Your task to perform on an android device: Open Chrome and go to settings Image 0: 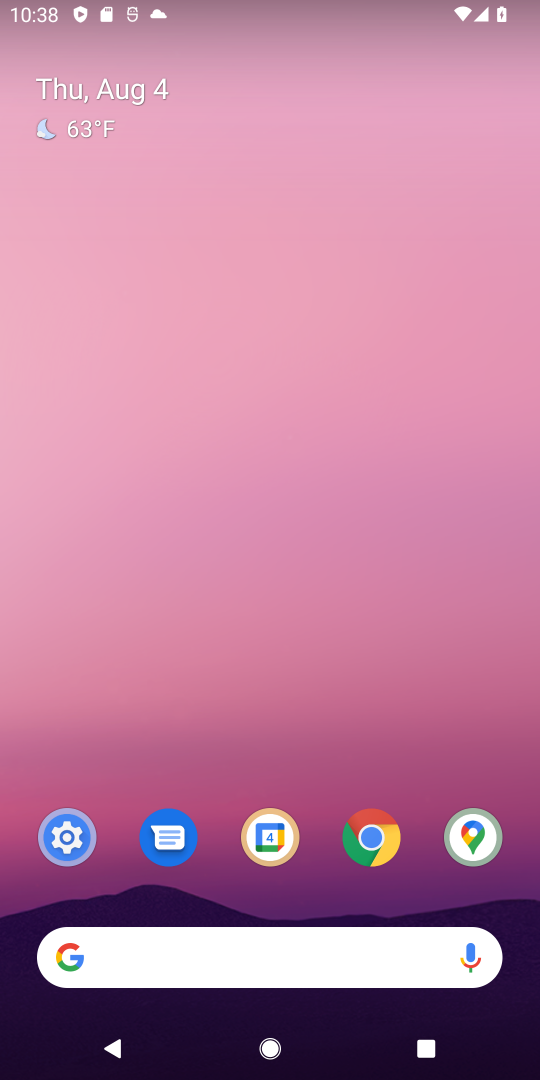
Step 0: press home button
Your task to perform on an android device: Open Chrome and go to settings Image 1: 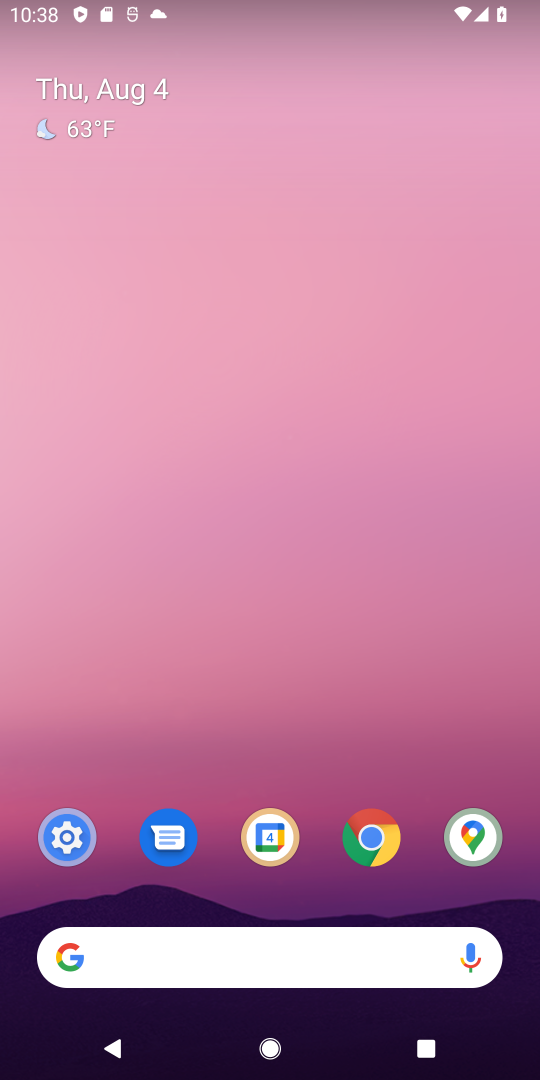
Step 1: drag from (306, 894) to (346, 149)
Your task to perform on an android device: Open Chrome and go to settings Image 2: 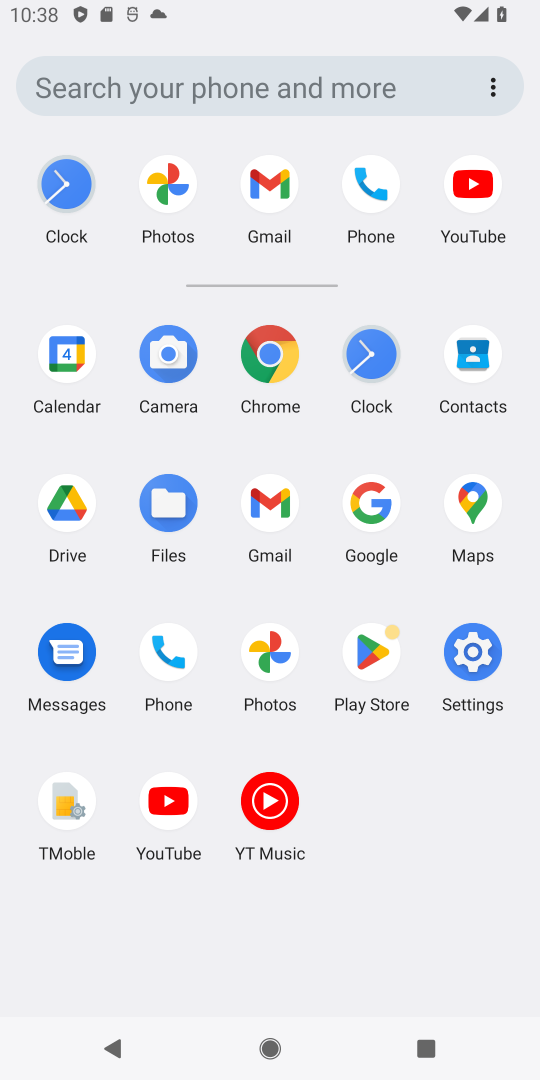
Step 2: click (270, 346)
Your task to perform on an android device: Open Chrome and go to settings Image 3: 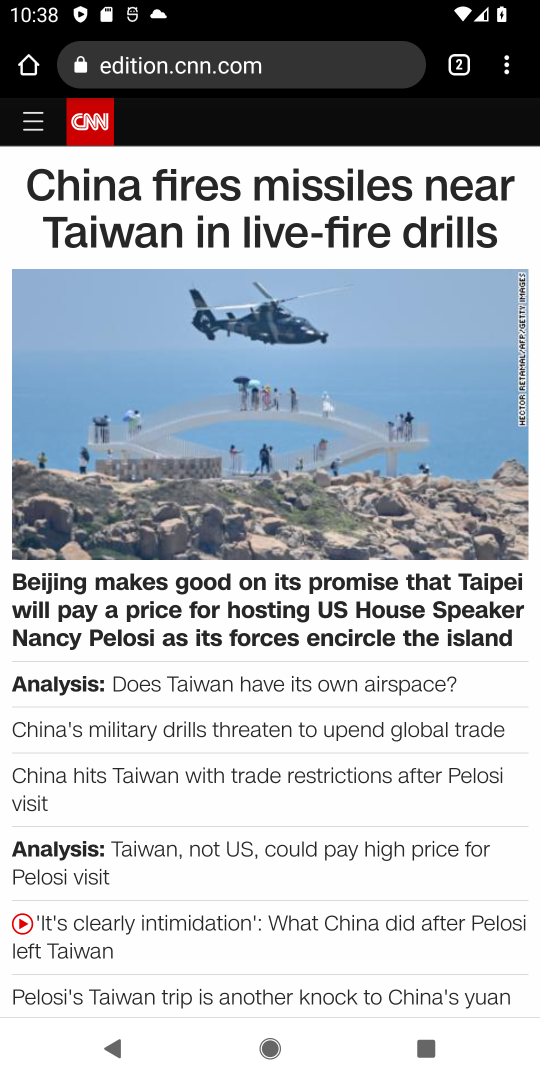
Step 3: click (506, 59)
Your task to perform on an android device: Open Chrome and go to settings Image 4: 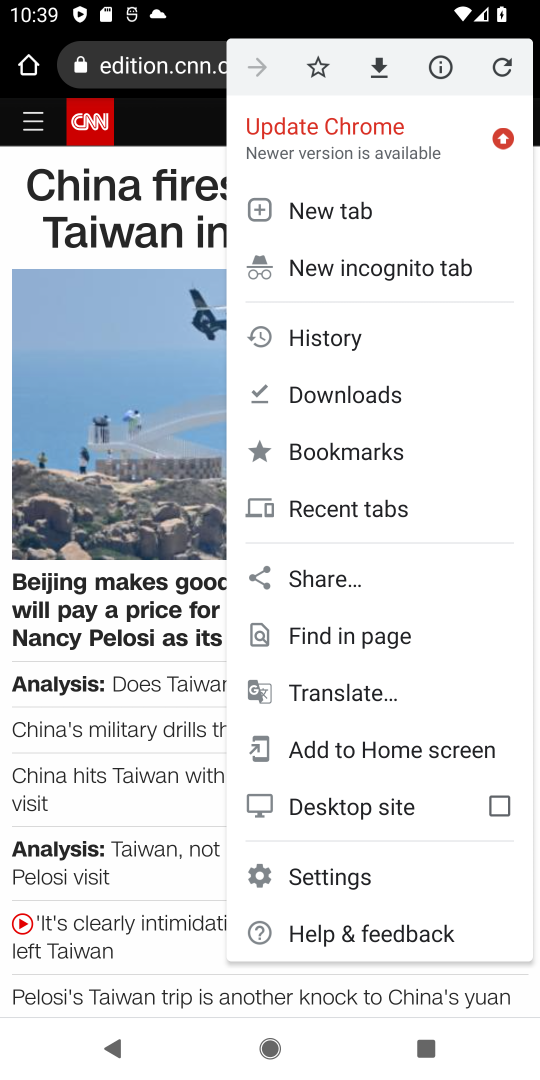
Step 4: click (378, 882)
Your task to perform on an android device: Open Chrome and go to settings Image 5: 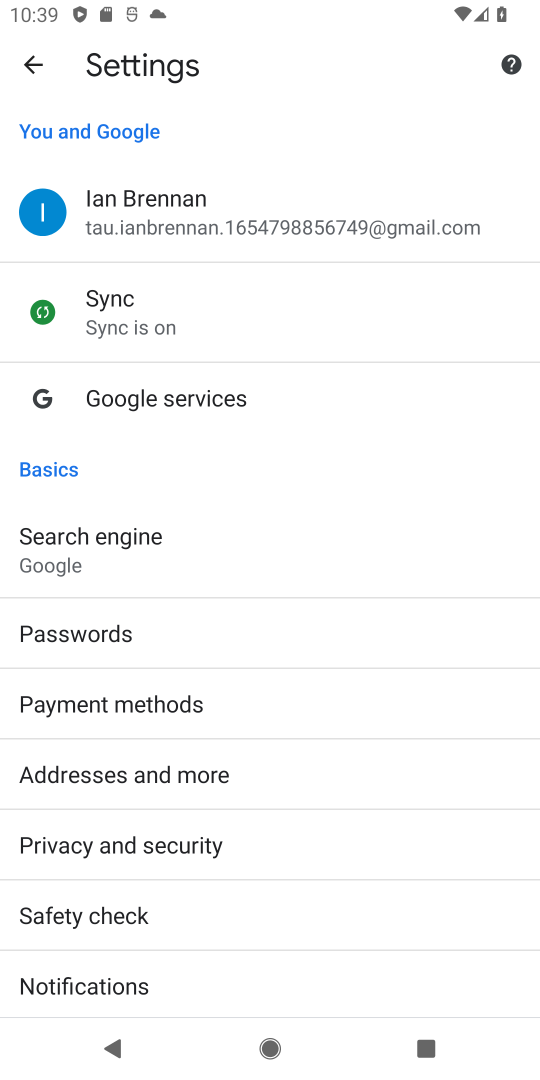
Step 5: task complete